Your task to perform on an android device: Go to CNN.com Image 0: 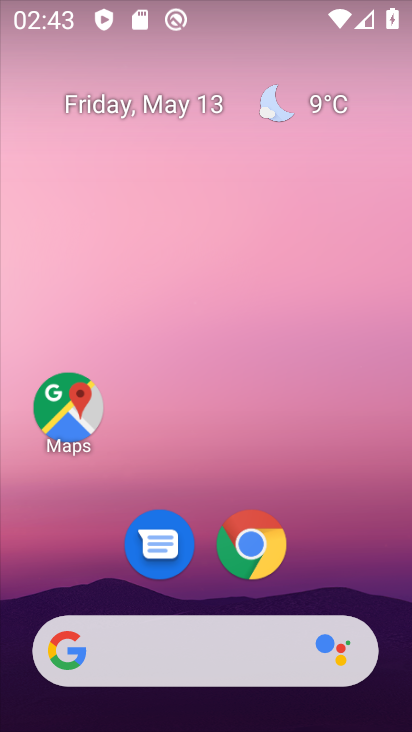
Step 0: drag from (320, 551) to (211, 11)
Your task to perform on an android device: Go to CNN.com Image 1: 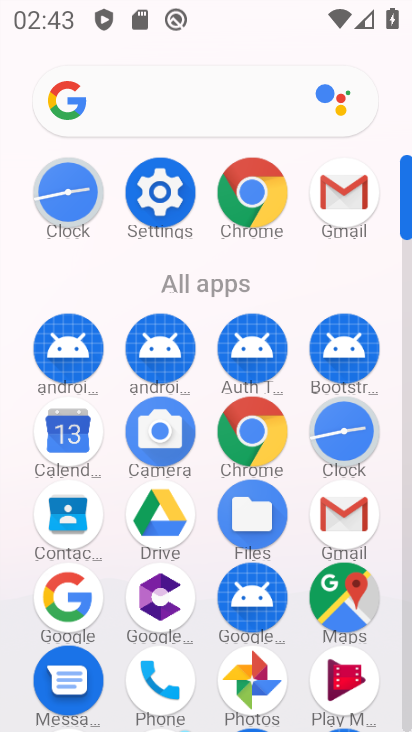
Step 1: click (250, 187)
Your task to perform on an android device: Go to CNN.com Image 2: 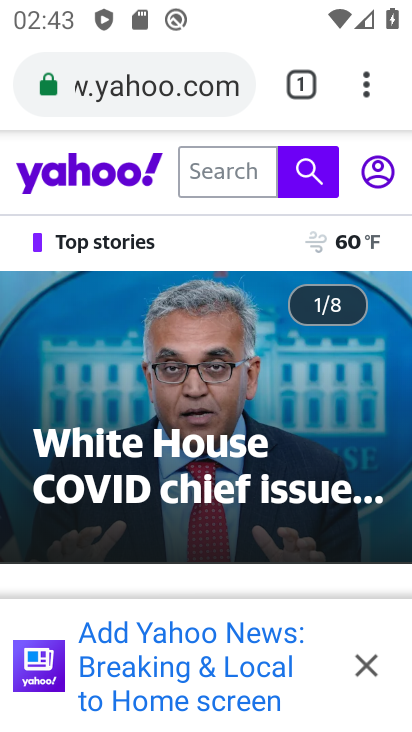
Step 2: click (140, 89)
Your task to perform on an android device: Go to CNN.com Image 3: 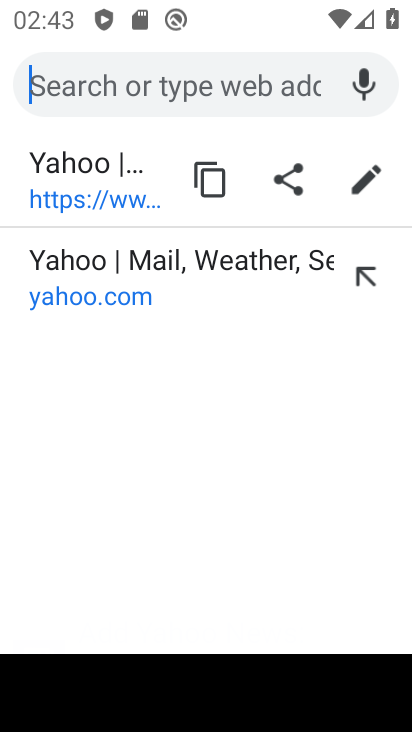
Step 3: type "CNN.com"
Your task to perform on an android device: Go to CNN.com Image 4: 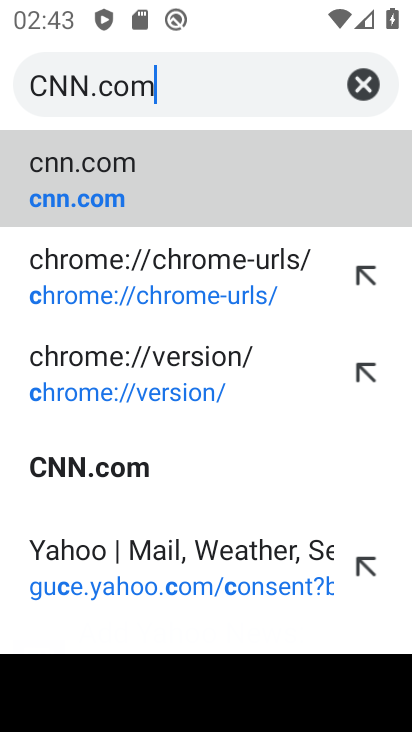
Step 4: type ""
Your task to perform on an android device: Go to CNN.com Image 5: 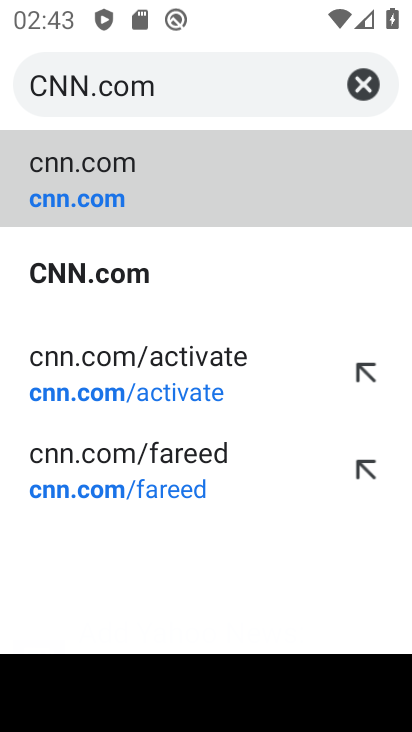
Step 5: click (215, 185)
Your task to perform on an android device: Go to CNN.com Image 6: 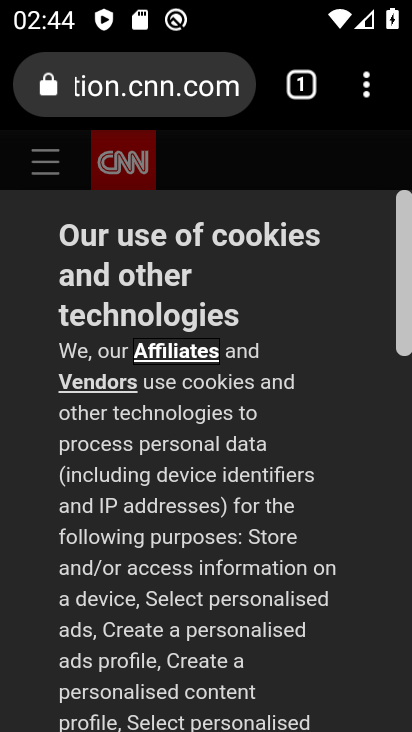
Step 6: task complete